Your task to perform on an android device: turn off priority inbox in the gmail app Image 0: 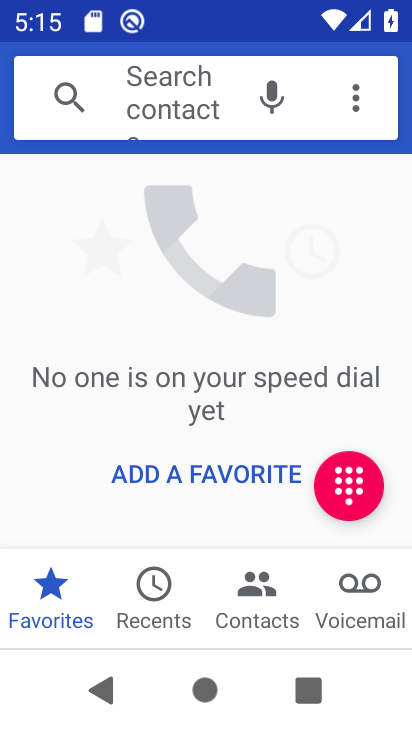
Step 0: press home button
Your task to perform on an android device: turn off priority inbox in the gmail app Image 1: 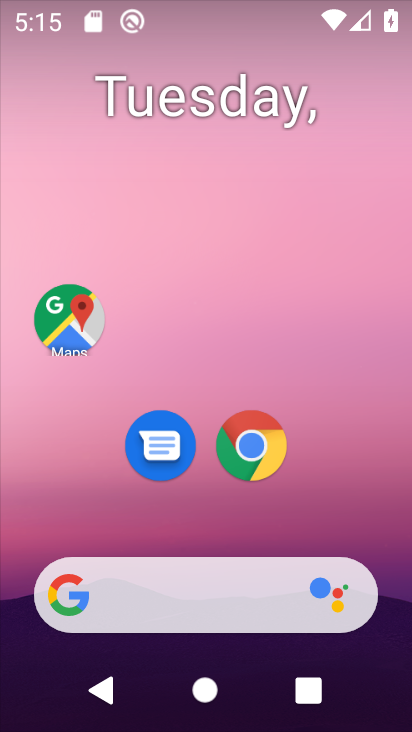
Step 1: drag from (251, 627) to (250, 98)
Your task to perform on an android device: turn off priority inbox in the gmail app Image 2: 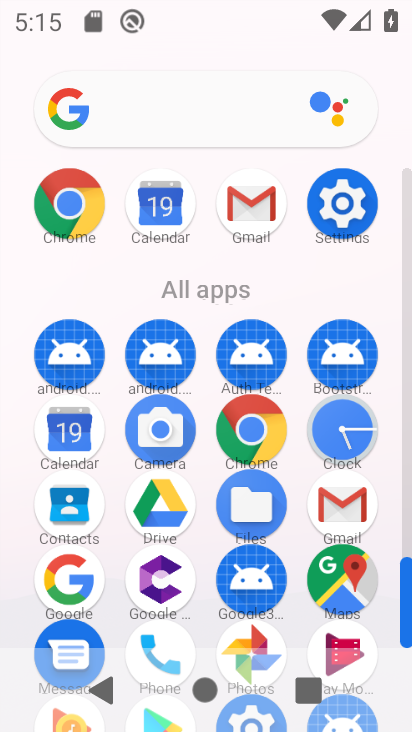
Step 2: click (351, 498)
Your task to perform on an android device: turn off priority inbox in the gmail app Image 3: 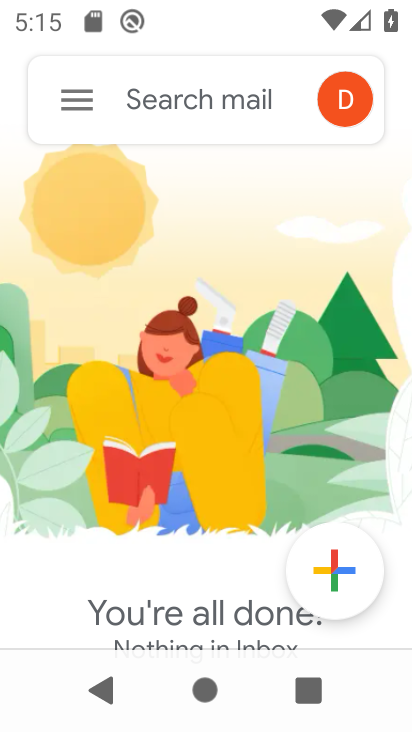
Step 3: click (68, 99)
Your task to perform on an android device: turn off priority inbox in the gmail app Image 4: 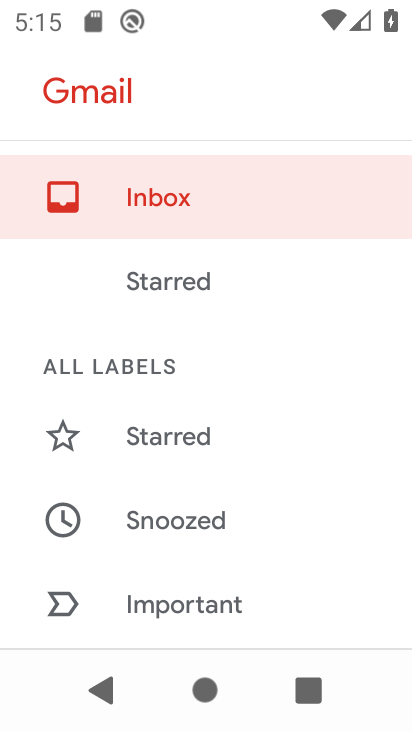
Step 4: drag from (92, 327) to (97, 151)
Your task to perform on an android device: turn off priority inbox in the gmail app Image 5: 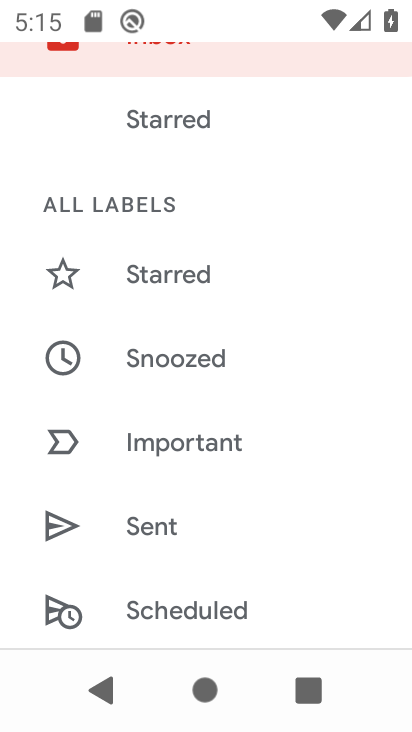
Step 5: drag from (140, 345) to (137, 224)
Your task to perform on an android device: turn off priority inbox in the gmail app Image 6: 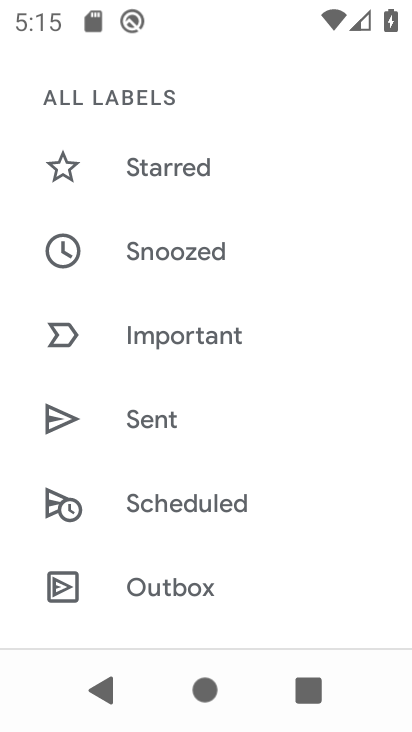
Step 6: drag from (154, 430) to (163, 124)
Your task to perform on an android device: turn off priority inbox in the gmail app Image 7: 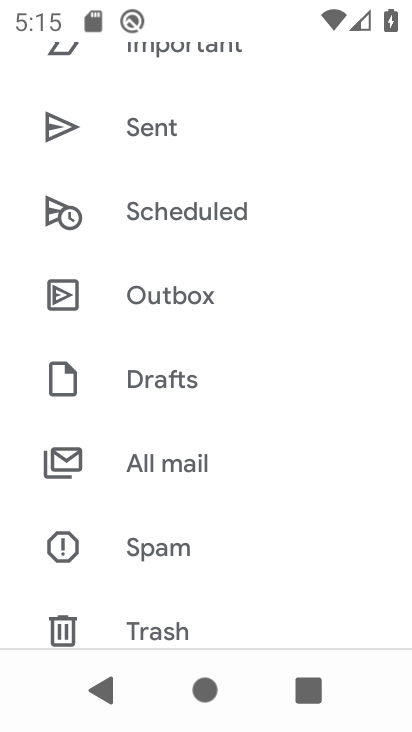
Step 7: drag from (181, 454) to (189, 158)
Your task to perform on an android device: turn off priority inbox in the gmail app Image 8: 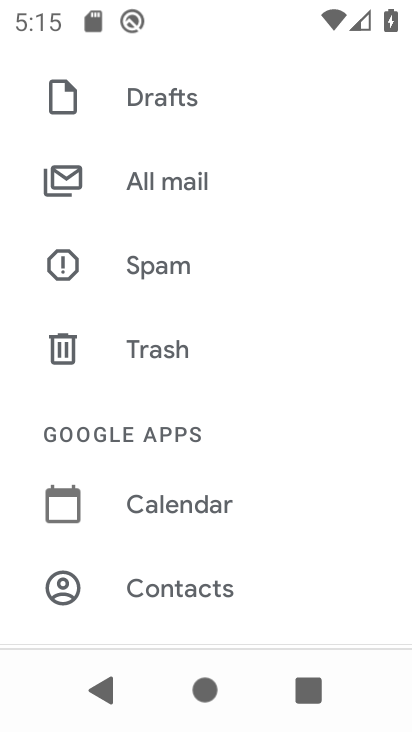
Step 8: drag from (201, 486) to (176, 157)
Your task to perform on an android device: turn off priority inbox in the gmail app Image 9: 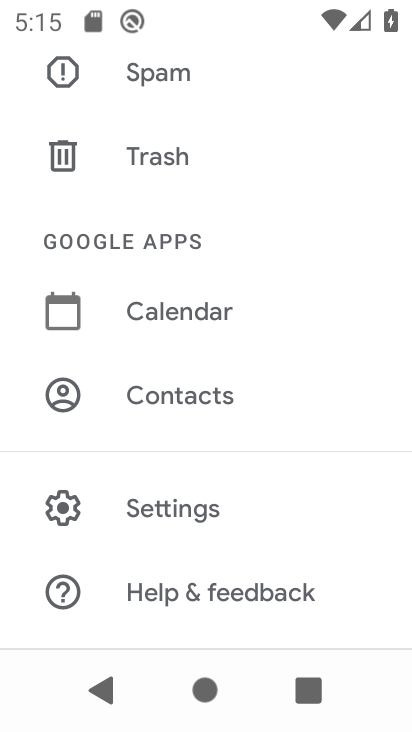
Step 9: click (166, 512)
Your task to perform on an android device: turn off priority inbox in the gmail app Image 10: 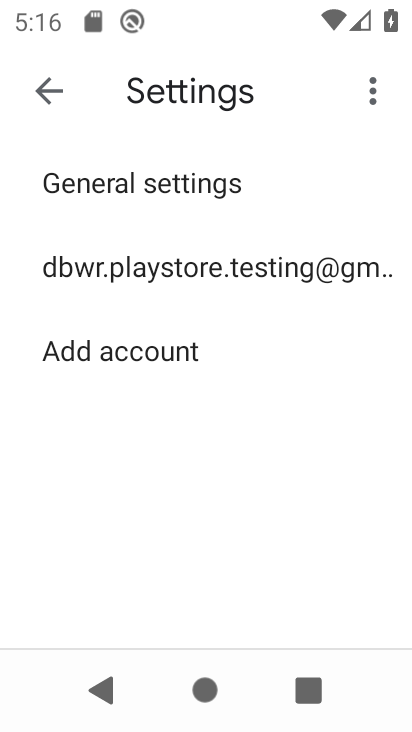
Step 10: click (168, 276)
Your task to perform on an android device: turn off priority inbox in the gmail app Image 11: 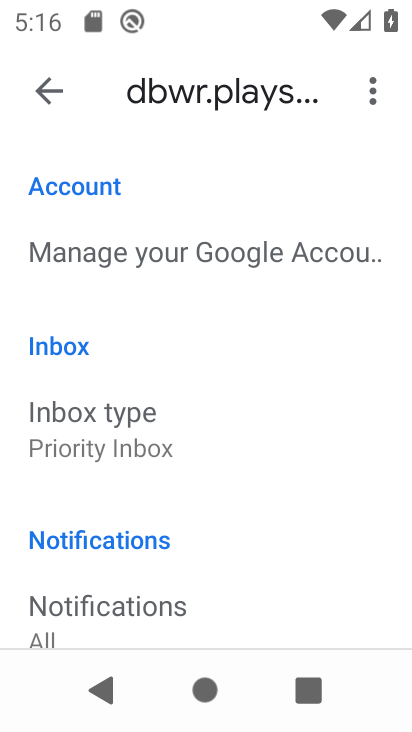
Step 11: click (129, 432)
Your task to perform on an android device: turn off priority inbox in the gmail app Image 12: 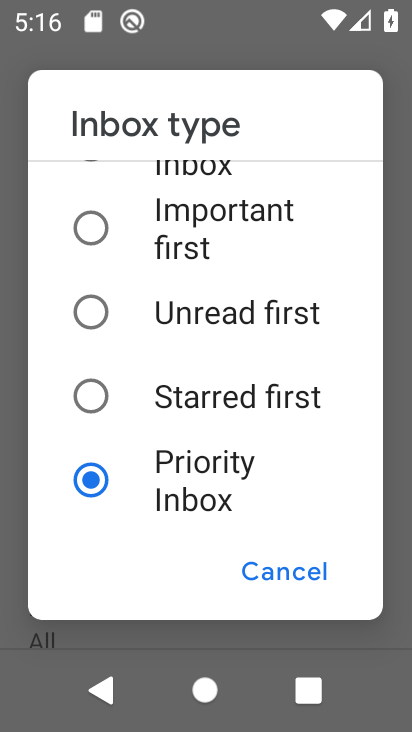
Step 12: click (96, 320)
Your task to perform on an android device: turn off priority inbox in the gmail app Image 13: 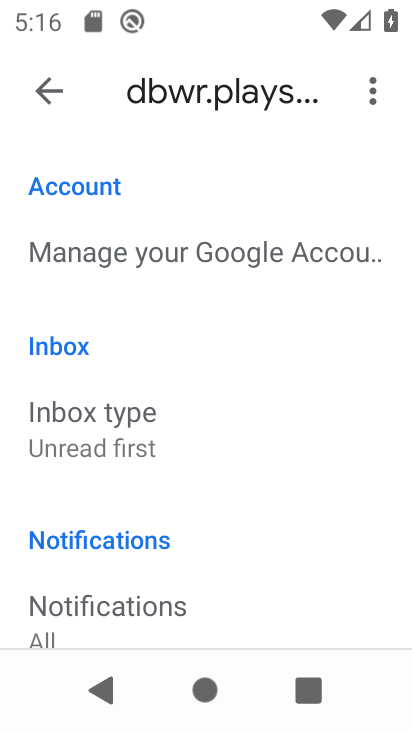
Step 13: task complete